Your task to perform on an android device: empty trash in the gmail app Image 0: 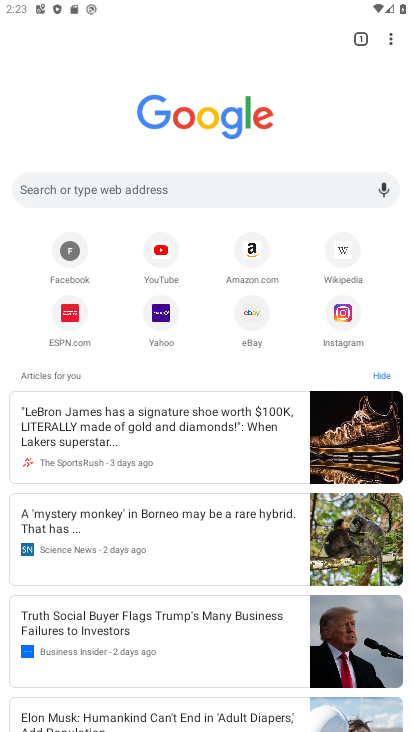
Step 0: press home button
Your task to perform on an android device: empty trash in the gmail app Image 1: 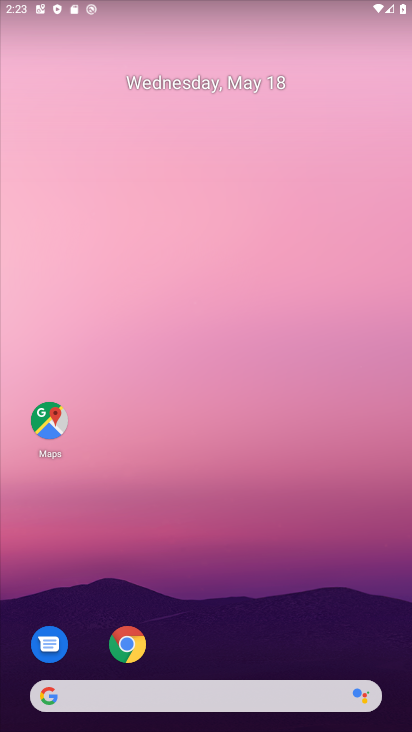
Step 1: drag from (317, 719) to (355, 253)
Your task to perform on an android device: empty trash in the gmail app Image 2: 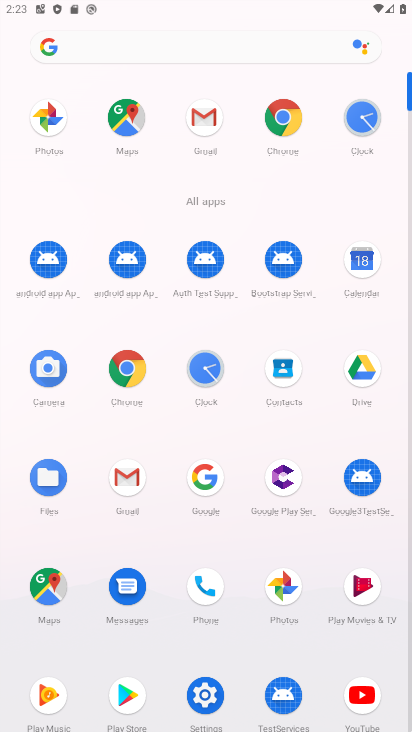
Step 2: click (196, 110)
Your task to perform on an android device: empty trash in the gmail app Image 3: 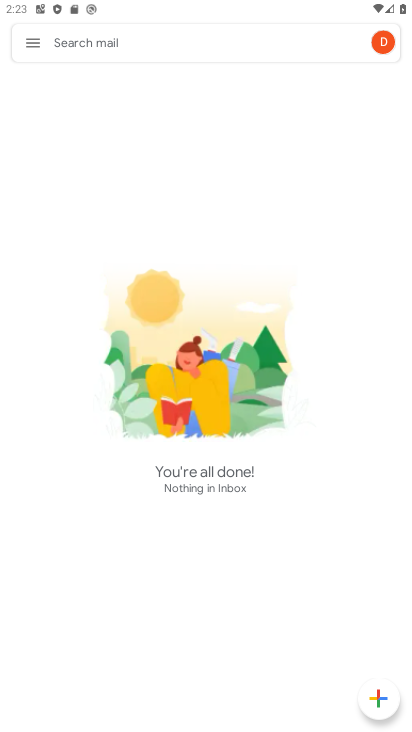
Step 3: click (26, 44)
Your task to perform on an android device: empty trash in the gmail app Image 4: 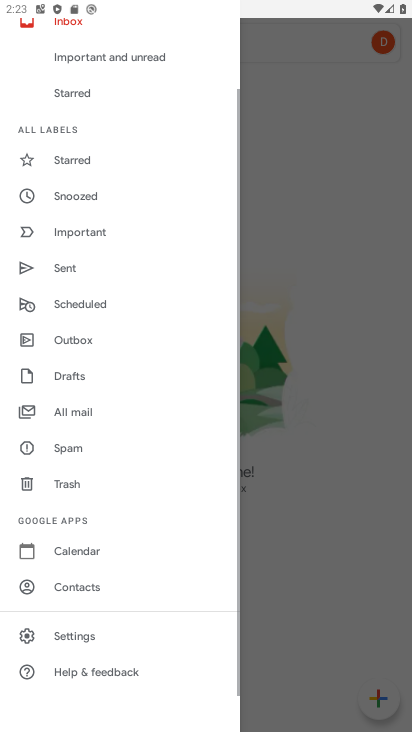
Step 4: click (82, 482)
Your task to perform on an android device: empty trash in the gmail app Image 5: 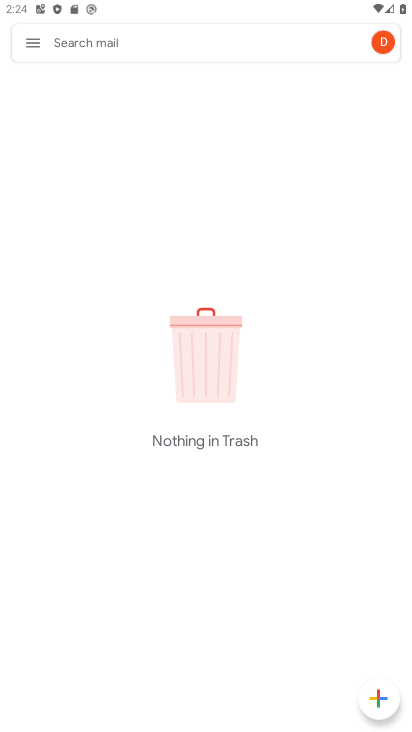
Step 5: task complete